Your task to perform on an android device: toggle javascript in the chrome app Image 0: 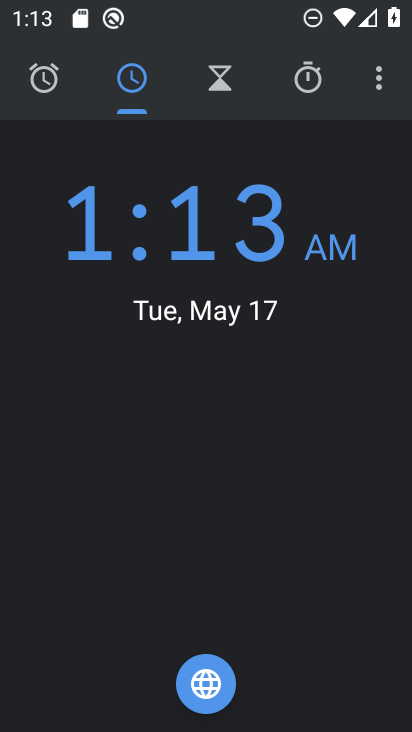
Step 0: press back button
Your task to perform on an android device: toggle javascript in the chrome app Image 1: 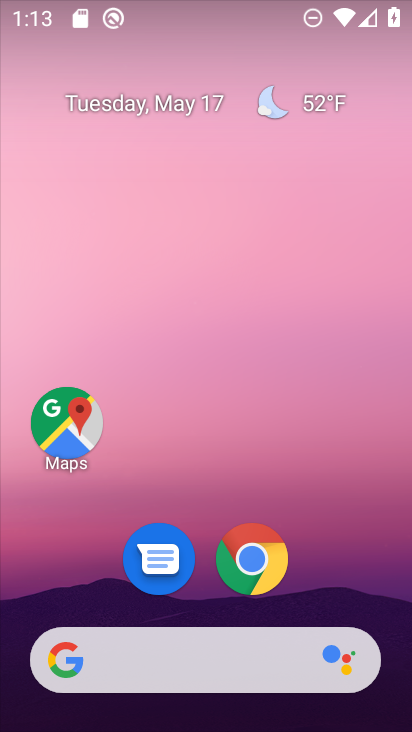
Step 1: click (245, 554)
Your task to perform on an android device: toggle javascript in the chrome app Image 2: 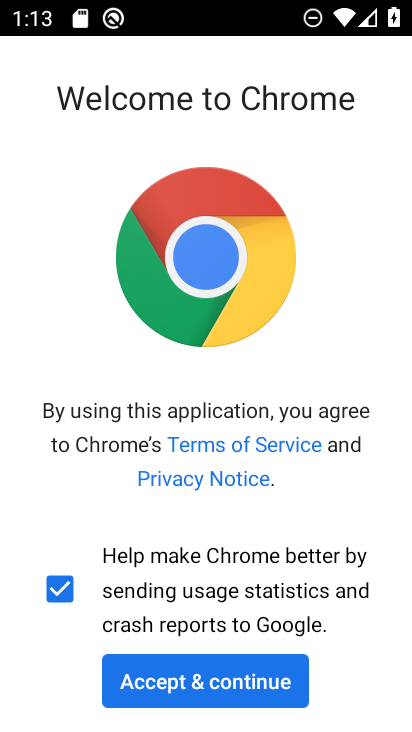
Step 2: click (192, 676)
Your task to perform on an android device: toggle javascript in the chrome app Image 3: 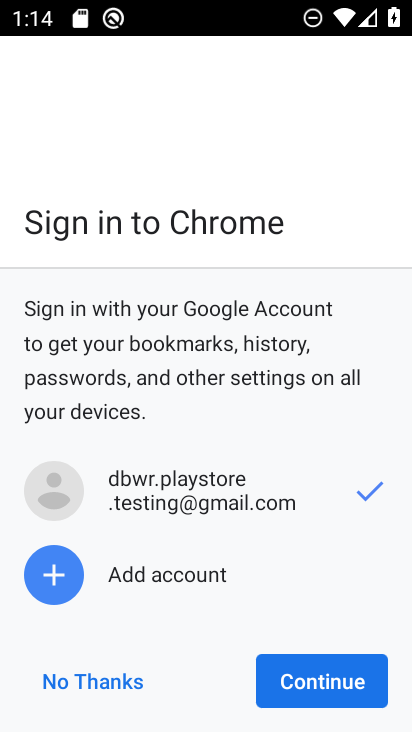
Step 3: click (311, 676)
Your task to perform on an android device: toggle javascript in the chrome app Image 4: 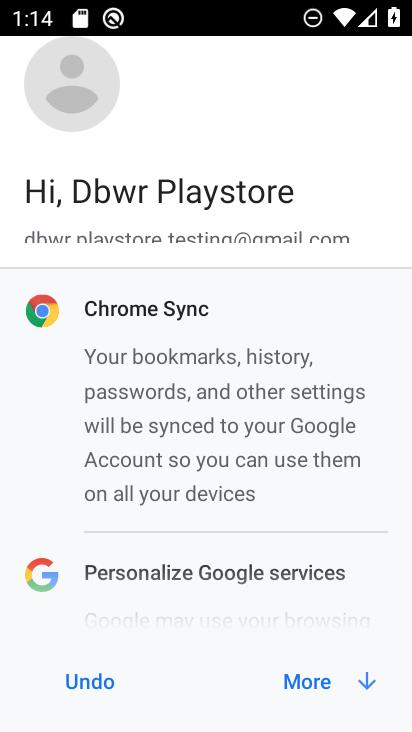
Step 4: click (303, 681)
Your task to perform on an android device: toggle javascript in the chrome app Image 5: 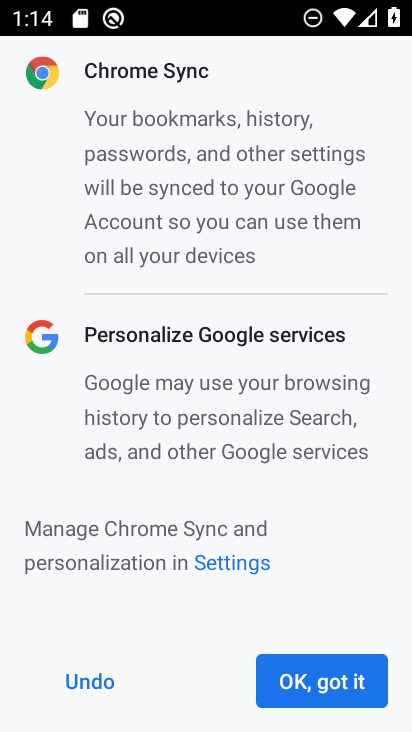
Step 5: click (303, 681)
Your task to perform on an android device: toggle javascript in the chrome app Image 6: 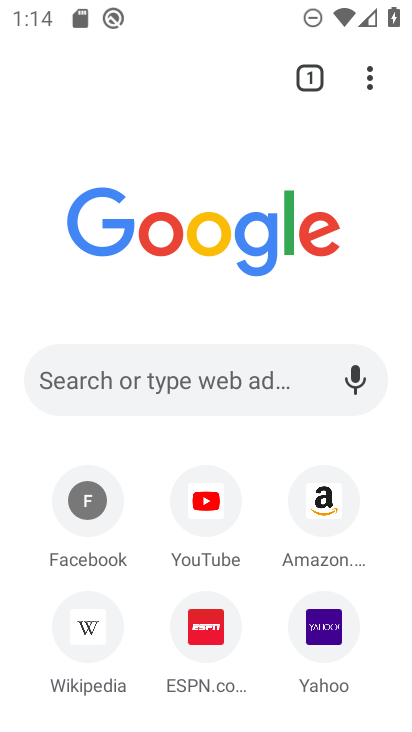
Step 6: click (371, 84)
Your task to perform on an android device: toggle javascript in the chrome app Image 7: 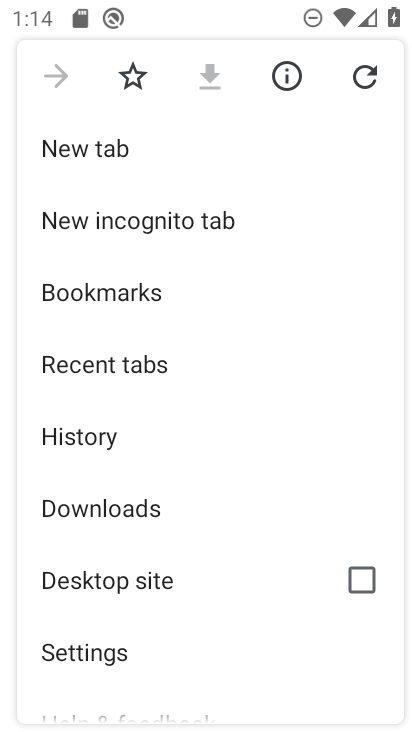
Step 7: drag from (183, 546) to (232, 426)
Your task to perform on an android device: toggle javascript in the chrome app Image 8: 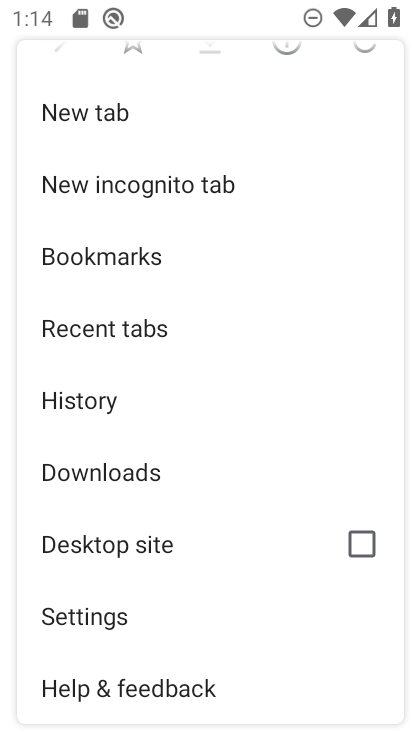
Step 8: drag from (168, 581) to (210, 476)
Your task to perform on an android device: toggle javascript in the chrome app Image 9: 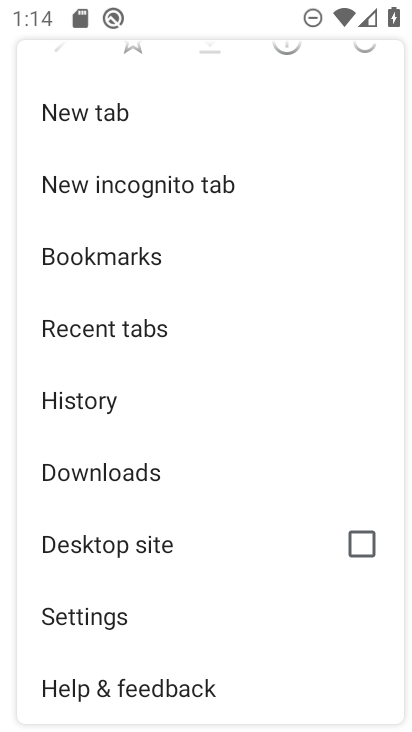
Step 9: click (111, 619)
Your task to perform on an android device: toggle javascript in the chrome app Image 10: 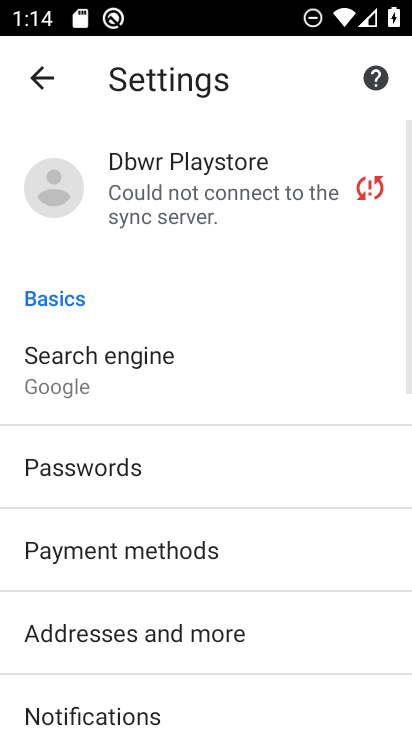
Step 10: drag from (135, 600) to (171, 480)
Your task to perform on an android device: toggle javascript in the chrome app Image 11: 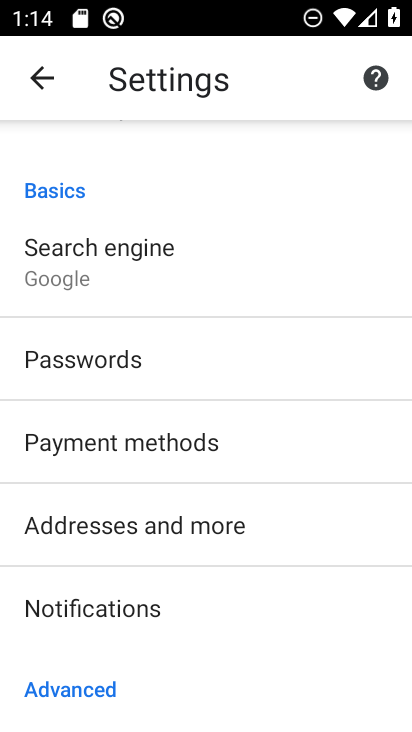
Step 11: drag from (130, 634) to (175, 512)
Your task to perform on an android device: toggle javascript in the chrome app Image 12: 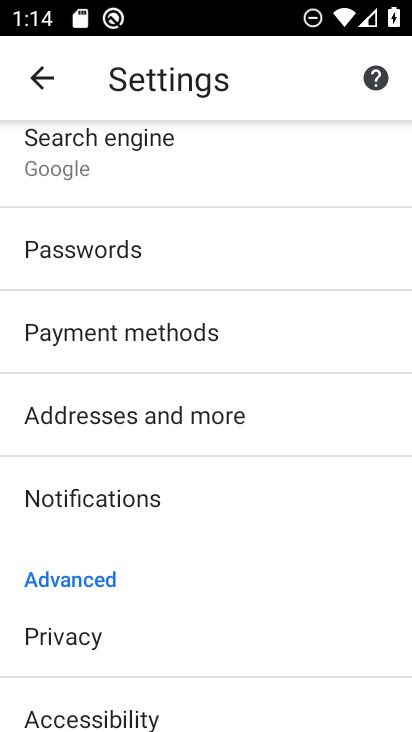
Step 12: drag from (137, 631) to (211, 496)
Your task to perform on an android device: toggle javascript in the chrome app Image 13: 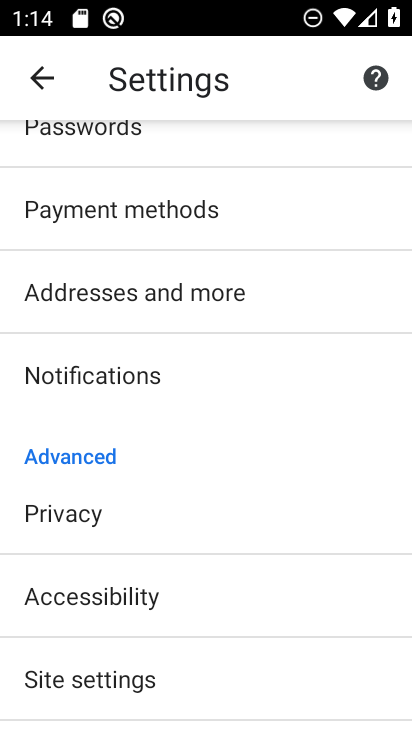
Step 13: drag from (152, 632) to (196, 514)
Your task to perform on an android device: toggle javascript in the chrome app Image 14: 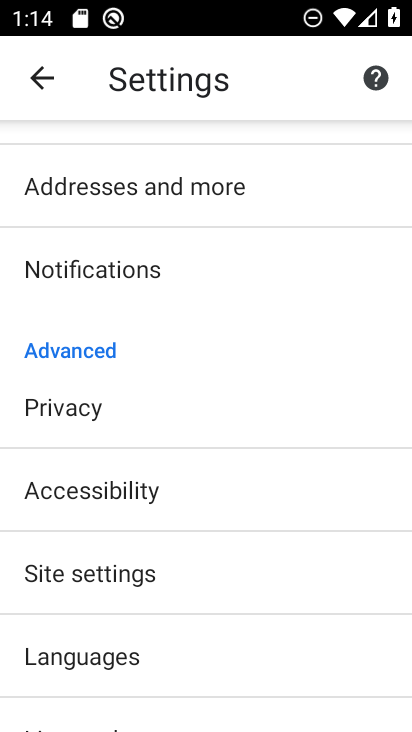
Step 14: drag from (137, 614) to (202, 488)
Your task to perform on an android device: toggle javascript in the chrome app Image 15: 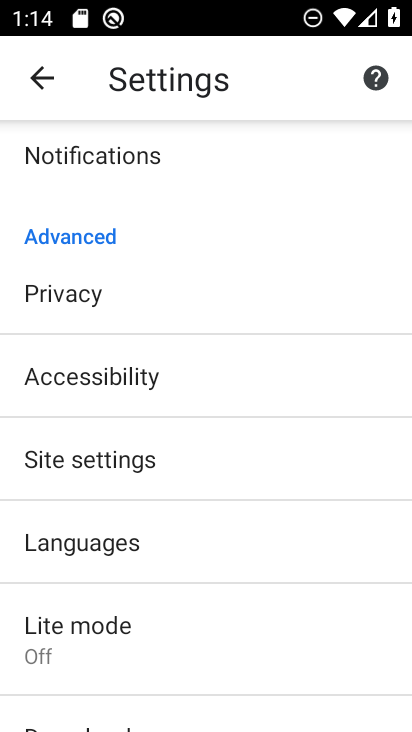
Step 15: drag from (156, 572) to (184, 488)
Your task to perform on an android device: toggle javascript in the chrome app Image 16: 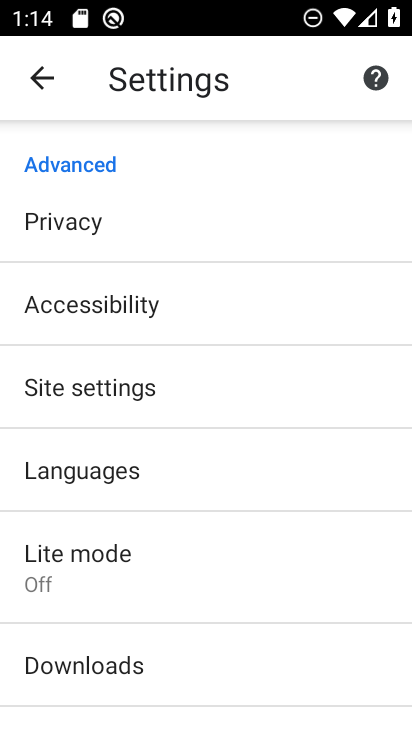
Step 16: click (117, 392)
Your task to perform on an android device: toggle javascript in the chrome app Image 17: 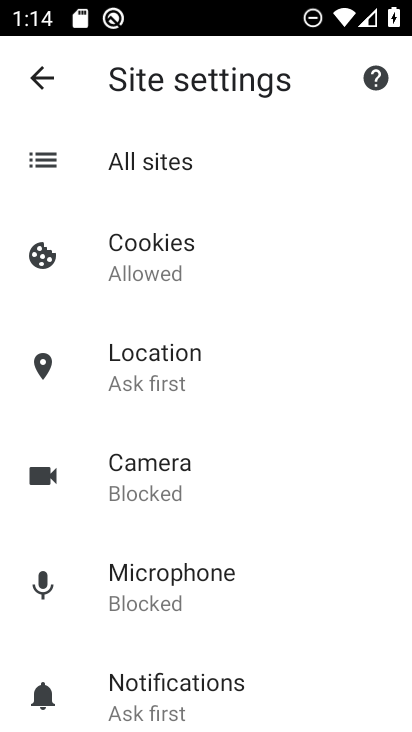
Step 17: drag from (175, 538) to (211, 435)
Your task to perform on an android device: toggle javascript in the chrome app Image 18: 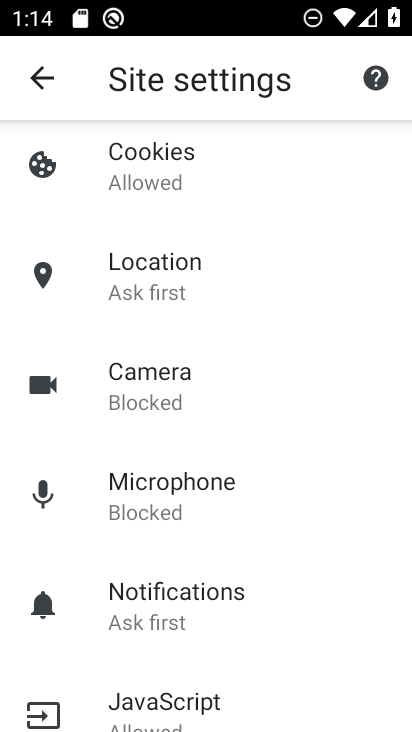
Step 18: drag from (179, 552) to (200, 463)
Your task to perform on an android device: toggle javascript in the chrome app Image 19: 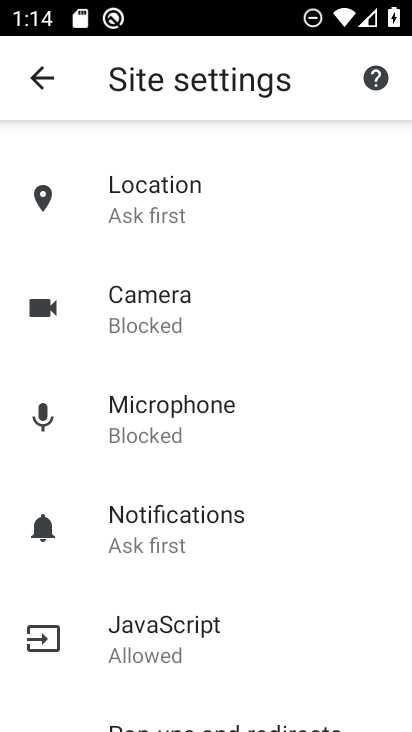
Step 19: drag from (181, 577) to (194, 471)
Your task to perform on an android device: toggle javascript in the chrome app Image 20: 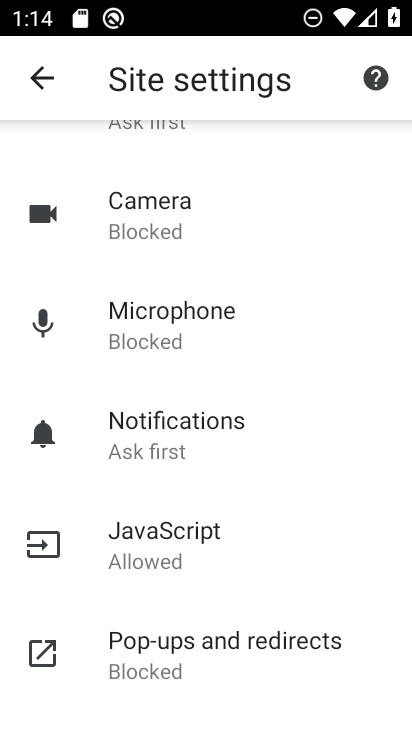
Step 20: click (170, 536)
Your task to perform on an android device: toggle javascript in the chrome app Image 21: 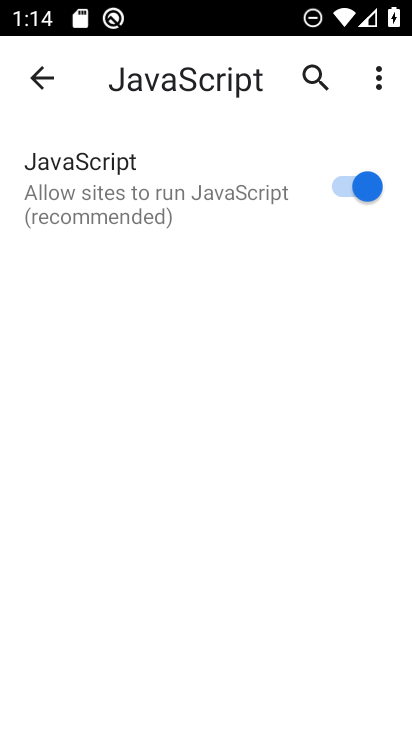
Step 21: click (343, 187)
Your task to perform on an android device: toggle javascript in the chrome app Image 22: 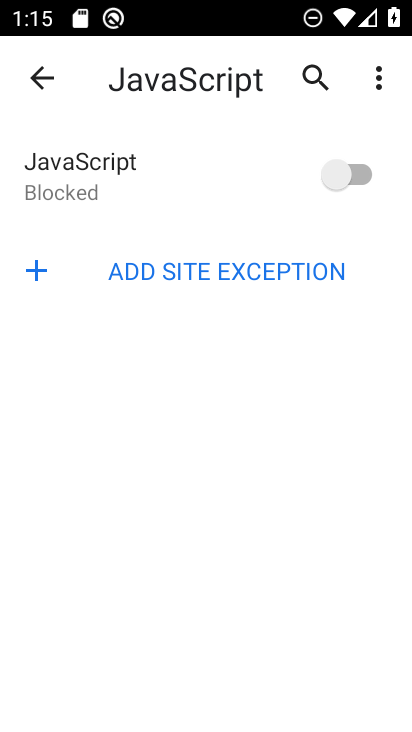
Step 22: task complete